Your task to perform on an android device: Go to Amazon Image 0: 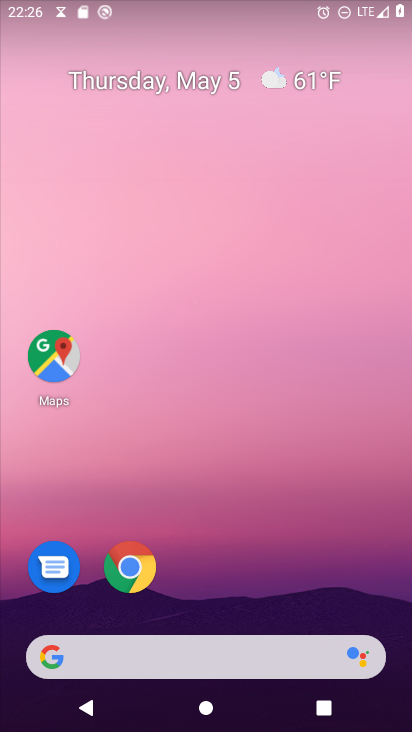
Step 0: click (124, 561)
Your task to perform on an android device: Go to Amazon Image 1: 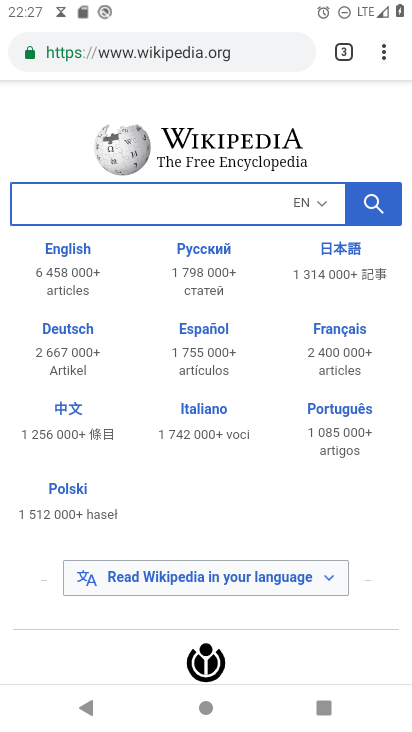
Step 1: drag from (384, 51) to (198, 104)
Your task to perform on an android device: Go to Amazon Image 2: 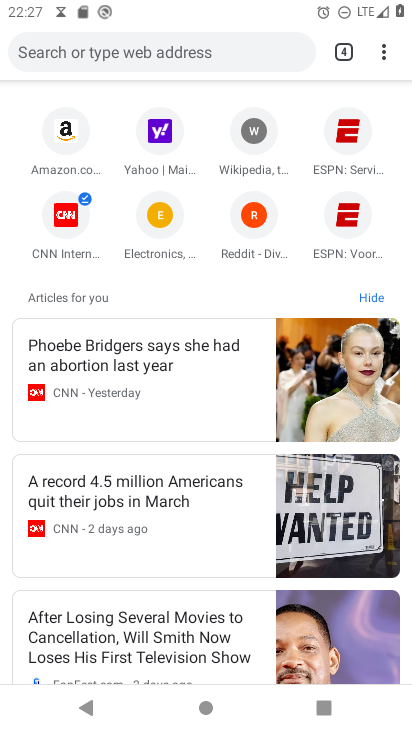
Step 2: click (64, 136)
Your task to perform on an android device: Go to Amazon Image 3: 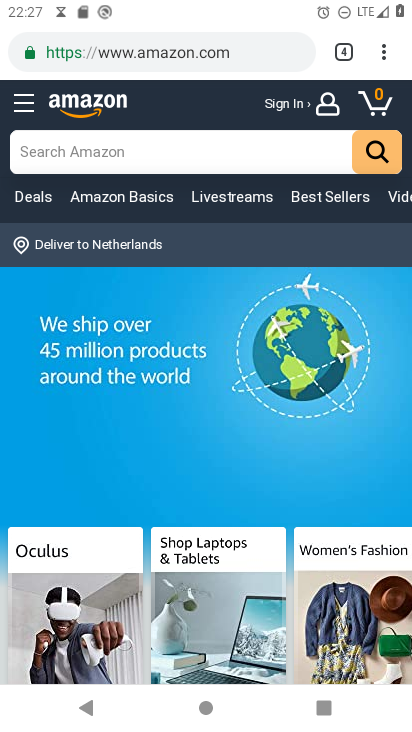
Step 3: task complete